Your task to perform on an android device: Open Google Chrome and click the shortcut for Amazon.com Image 0: 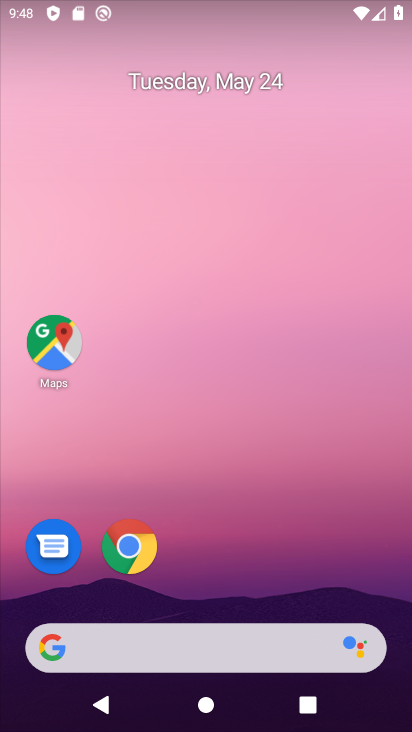
Step 0: click (122, 539)
Your task to perform on an android device: Open Google Chrome and click the shortcut for Amazon.com Image 1: 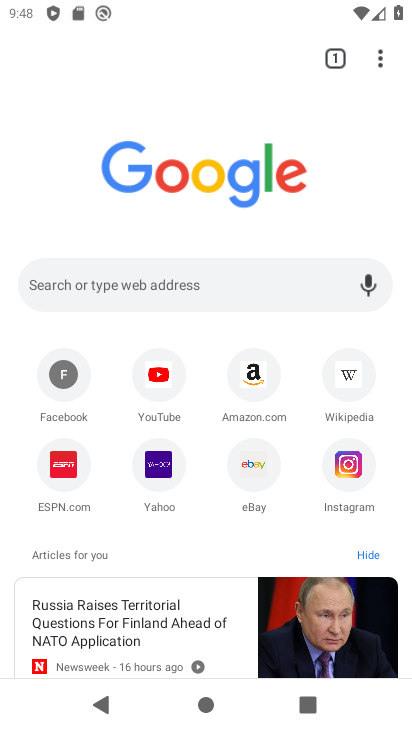
Step 1: click (249, 387)
Your task to perform on an android device: Open Google Chrome and click the shortcut for Amazon.com Image 2: 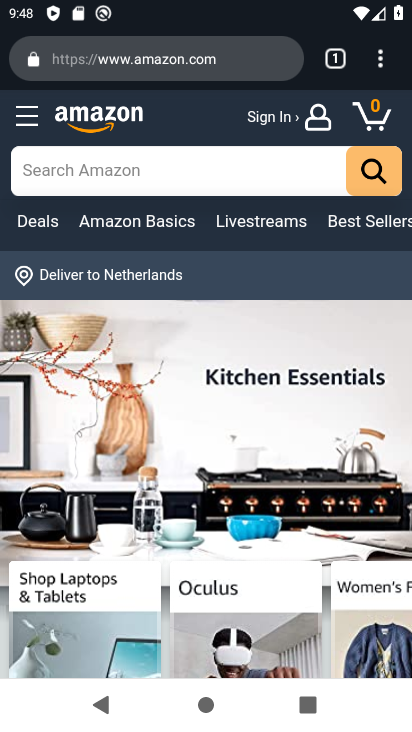
Step 2: task complete